Your task to perform on an android device: Open the calendar app, open the side menu, and click the "Day" option Image 0: 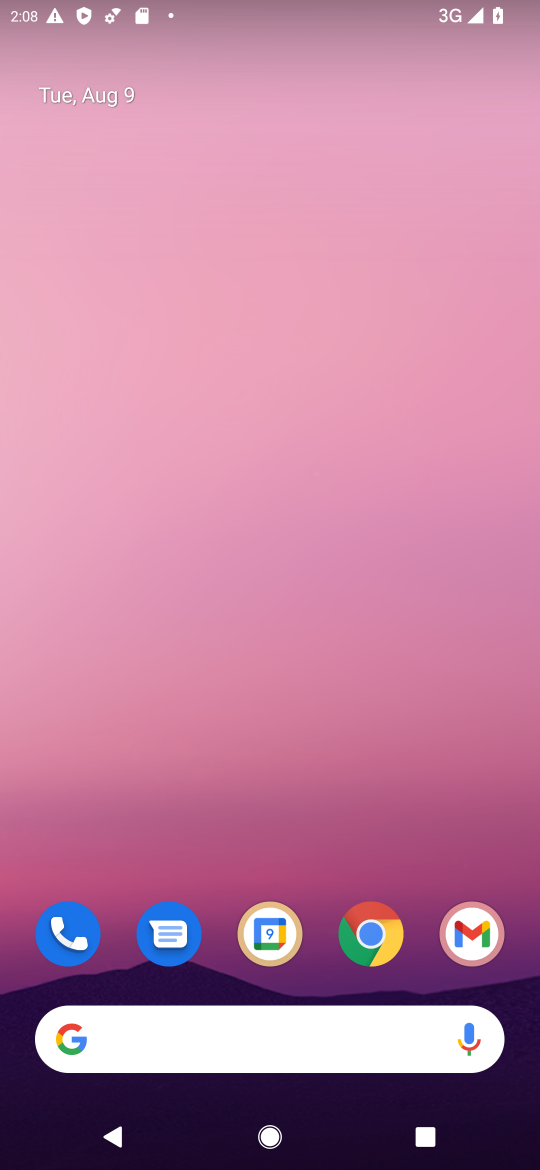
Step 0: drag from (318, 1000) to (374, 109)
Your task to perform on an android device: Open the calendar app, open the side menu, and click the "Day" option Image 1: 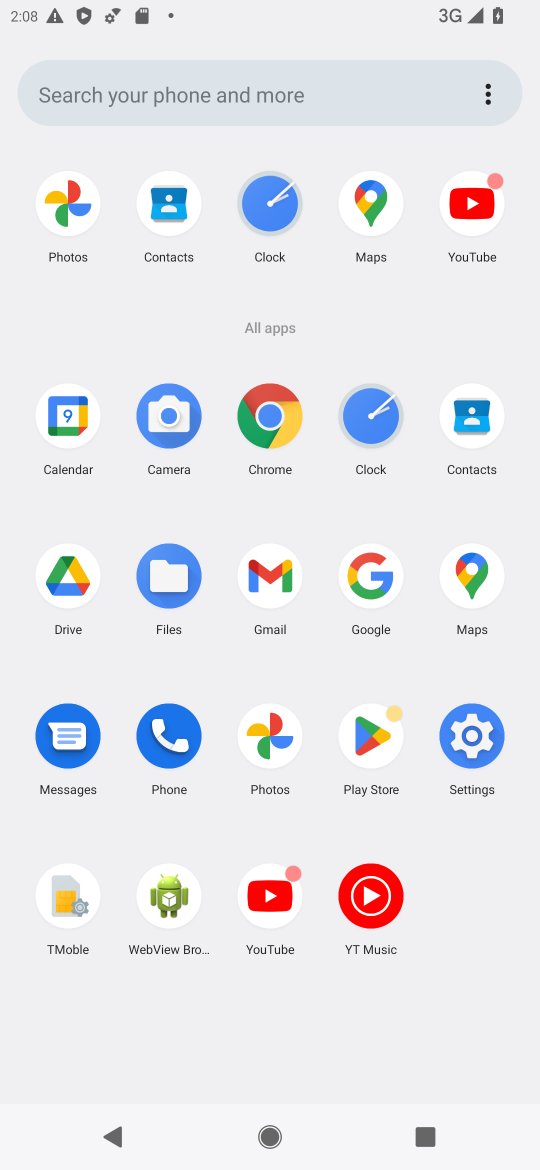
Step 1: click (71, 412)
Your task to perform on an android device: Open the calendar app, open the side menu, and click the "Day" option Image 2: 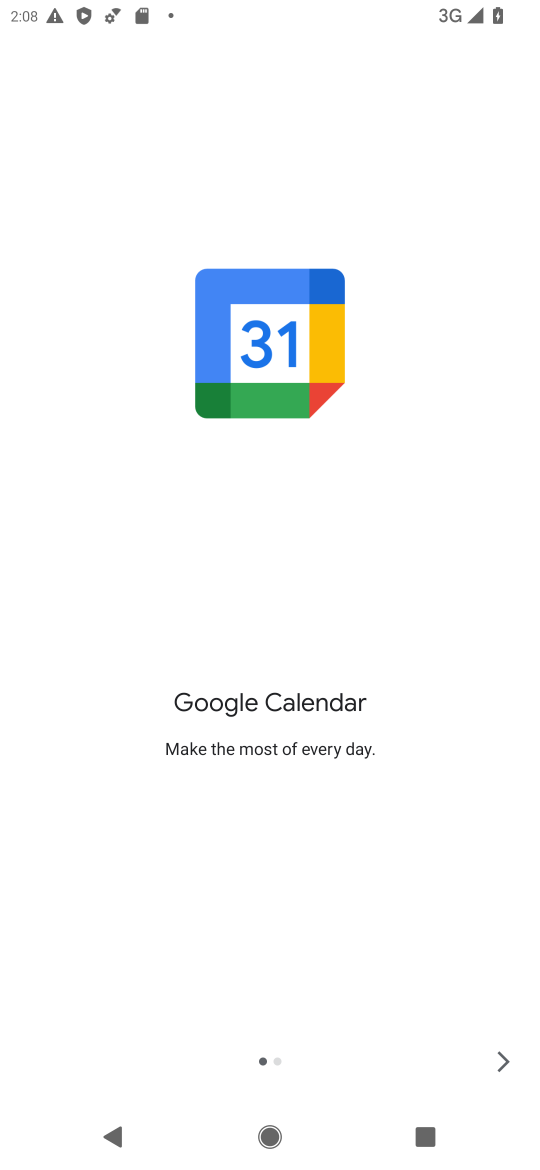
Step 2: click (515, 1078)
Your task to perform on an android device: Open the calendar app, open the side menu, and click the "Day" option Image 3: 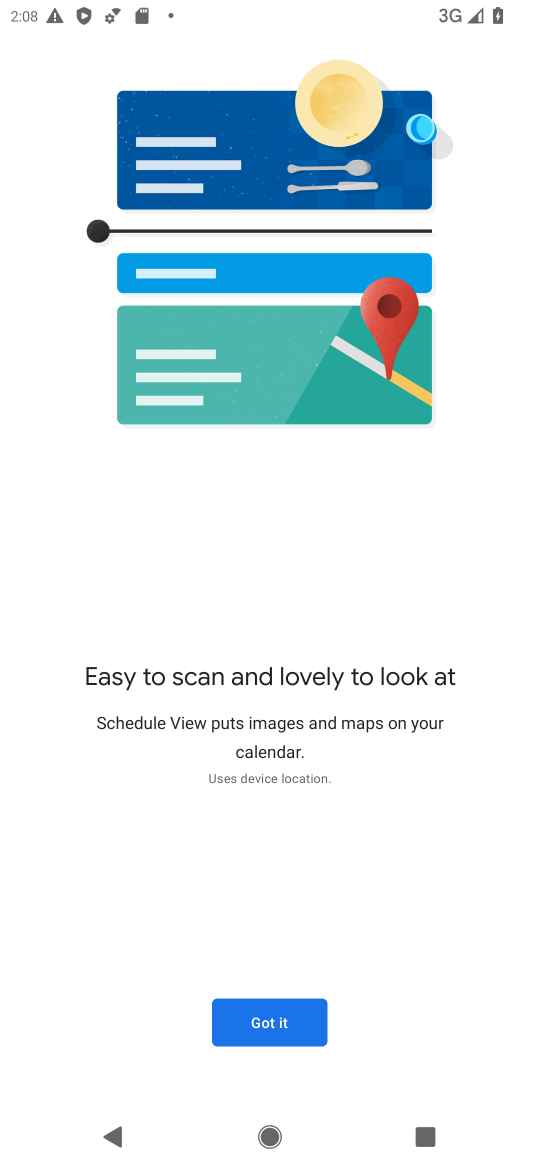
Step 3: click (241, 1015)
Your task to perform on an android device: Open the calendar app, open the side menu, and click the "Day" option Image 4: 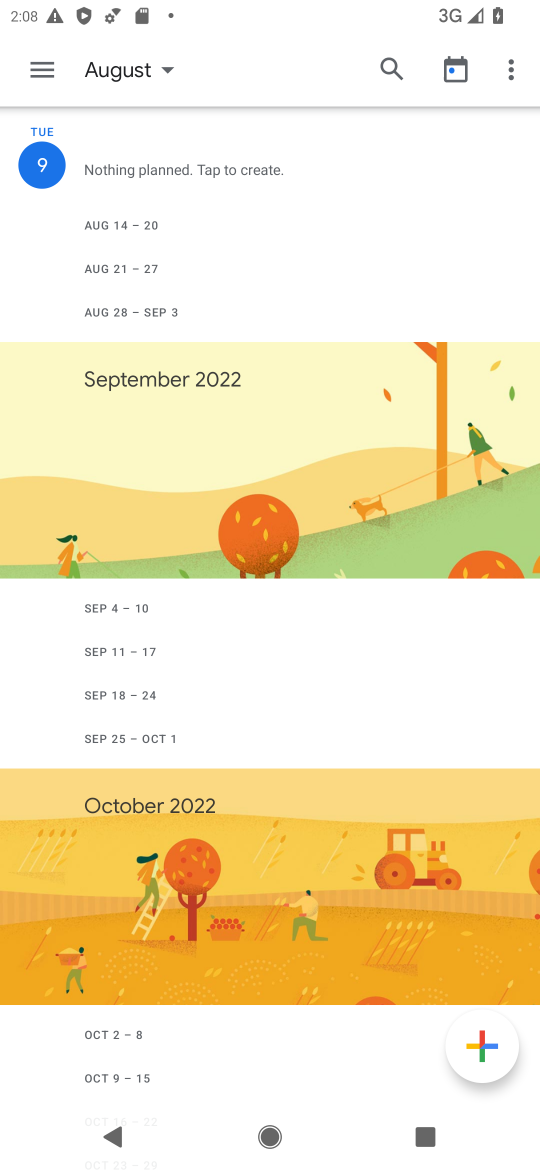
Step 4: click (34, 73)
Your task to perform on an android device: Open the calendar app, open the side menu, and click the "Day" option Image 5: 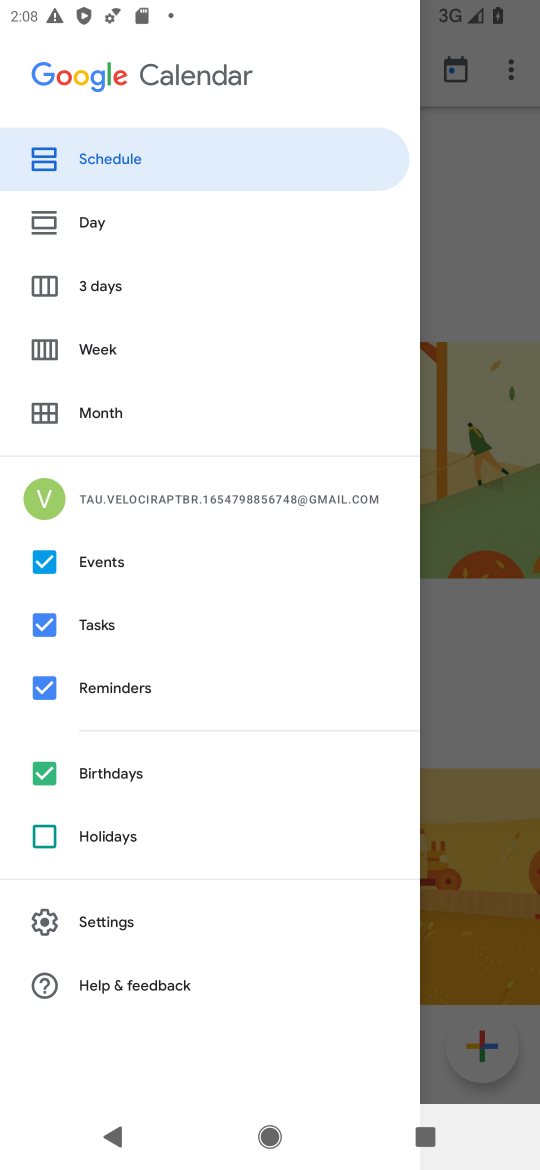
Step 5: click (67, 217)
Your task to perform on an android device: Open the calendar app, open the side menu, and click the "Day" option Image 6: 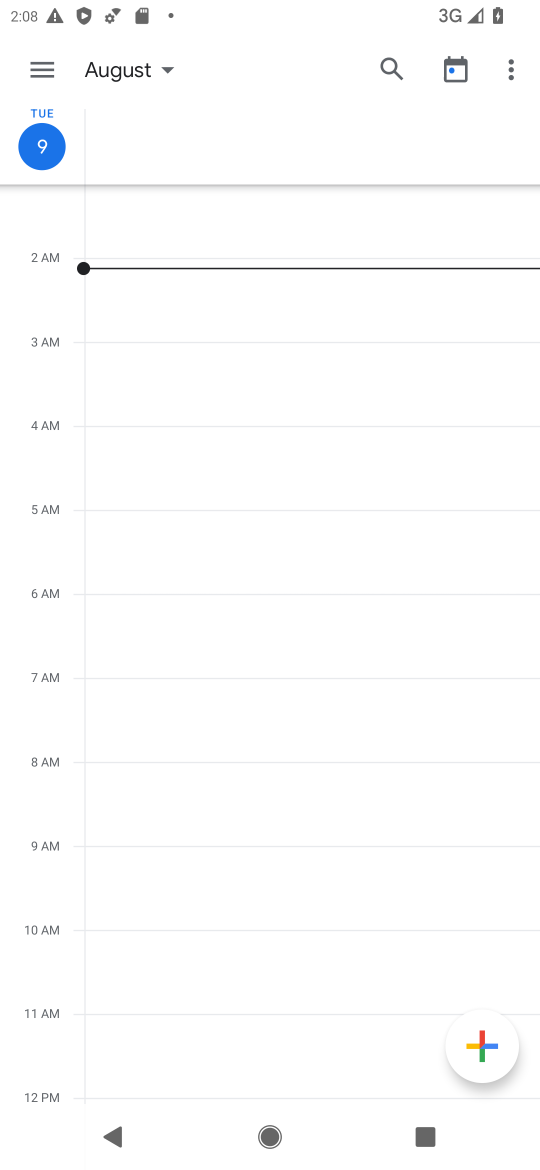
Step 6: task complete